Your task to perform on an android device: open chrome privacy settings Image 0: 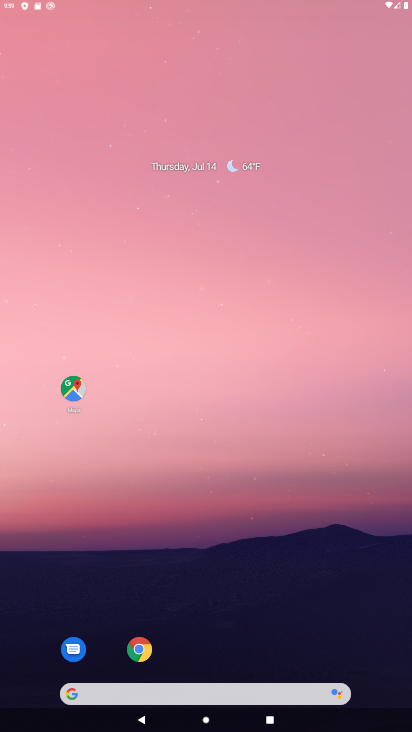
Step 0: drag from (253, 513) to (281, 125)
Your task to perform on an android device: open chrome privacy settings Image 1: 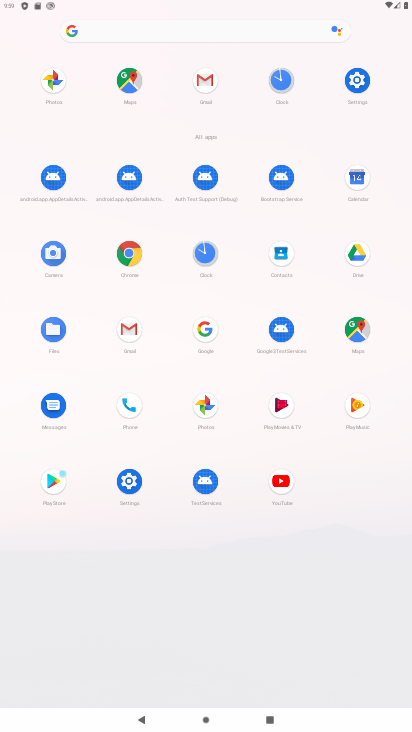
Step 1: click (129, 244)
Your task to perform on an android device: open chrome privacy settings Image 2: 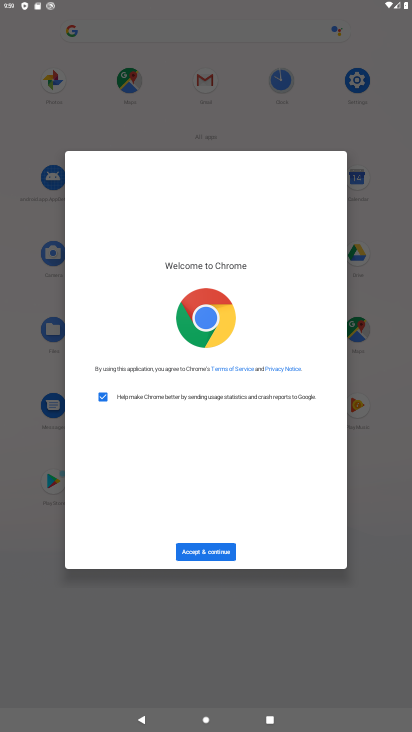
Step 2: click (185, 541)
Your task to perform on an android device: open chrome privacy settings Image 3: 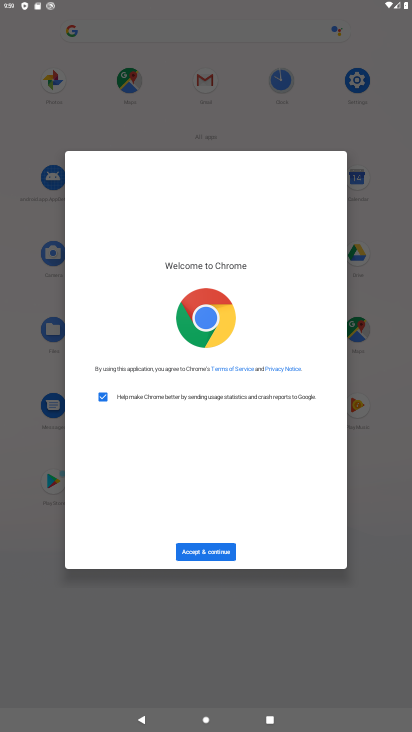
Step 3: click (201, 548)
Your task to perform on an android device: open chrome privacy settings Image 4: 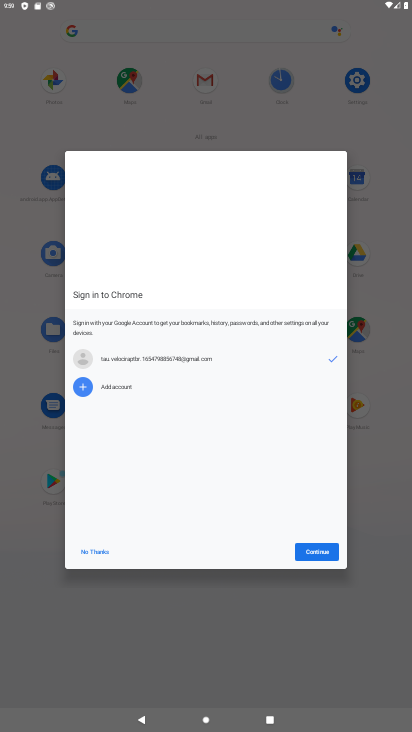
Step 4: click (331, 546)
Your task to perform on an android device: open chrome privacy settings Image 5: 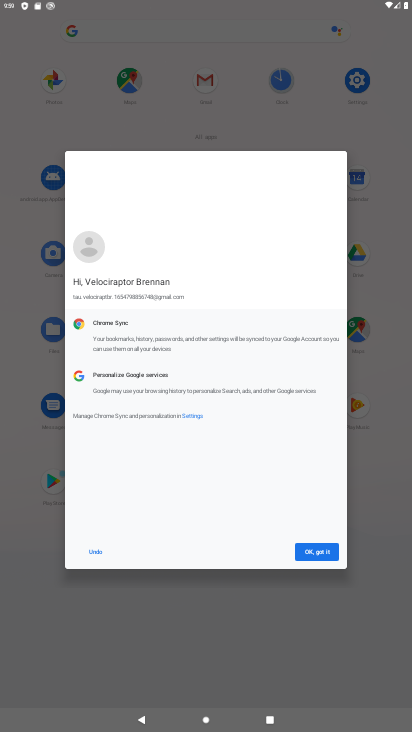
Step 5: click (331, 546)
Your task to perform on an android device: open chrome privacy settings Image 6: 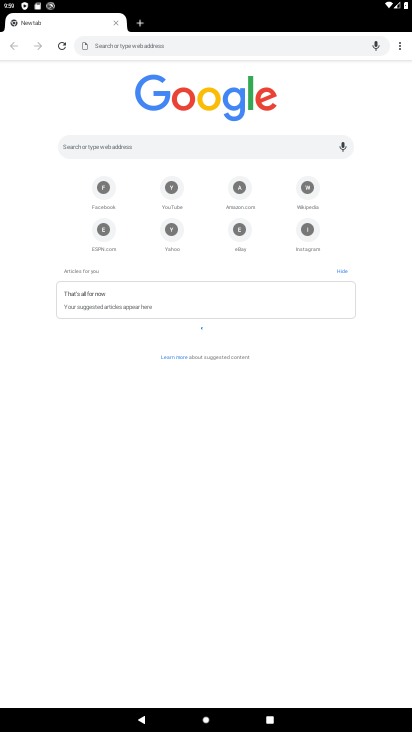
Step 6: click (400, 40)
Your task to perform on an android device: open chrome privacy settings Image 7: 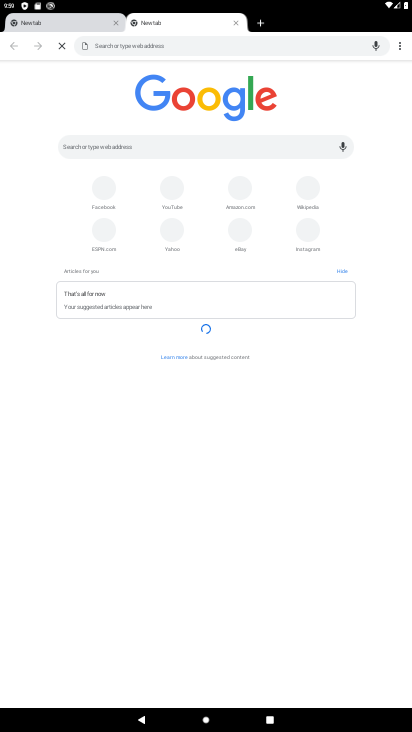
Step 7: drag from (400, 40) to (288, 213)
Your task to perform on an android device: open chrome privacy settings Image 8: 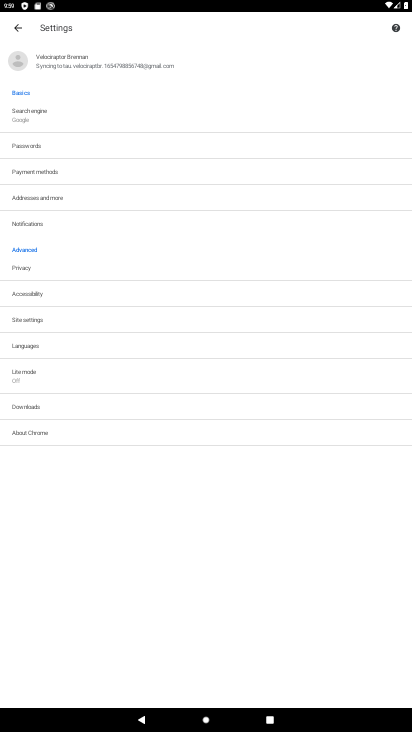
Step 8: click (20, 266)
Your task to perform on an android device: open chrome privacy settings Image 9: 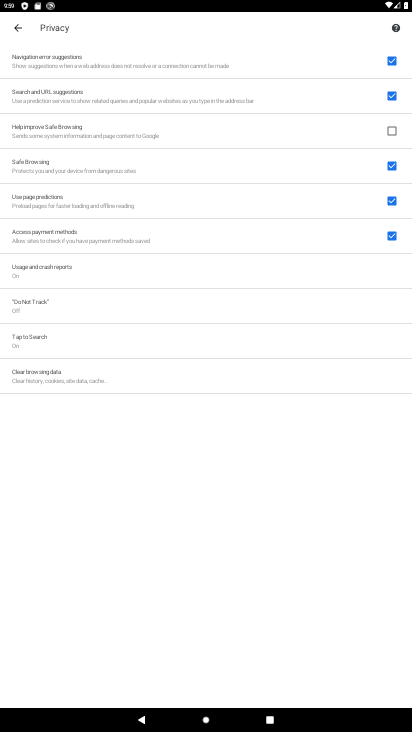
Step 9: task complete